Your task to perform on an android device: When is my next appointment? Image 0: 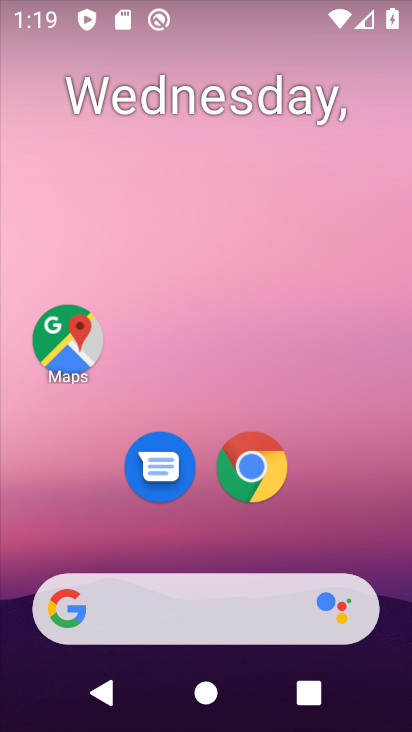
Step 0: press home button
Your task to perform on an android device: When is my next appointment? Image 1: 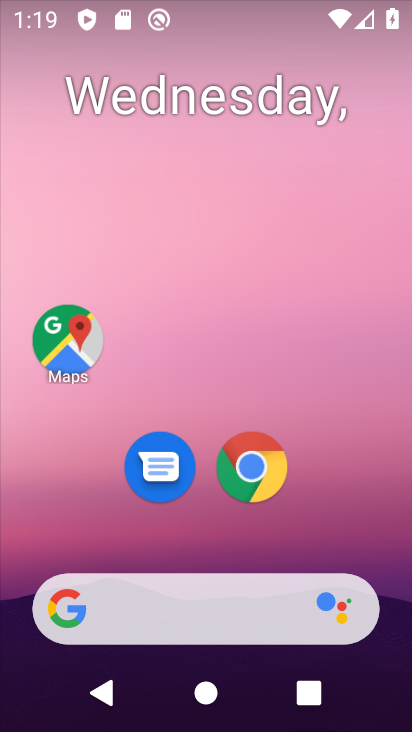
Step 1: drag from (268, 515) to (290, 13)
Your task to perform on an android device: When is my next appointment? Image 2: 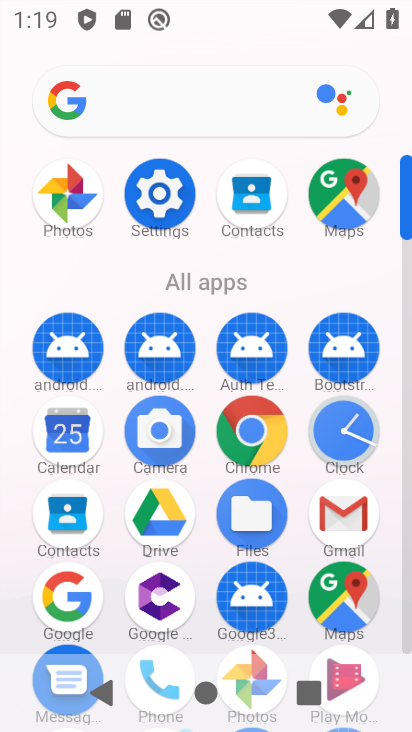
Step 2: click (76, 440)
Your task to perform on an android device: When is my next appointment? Image 3: 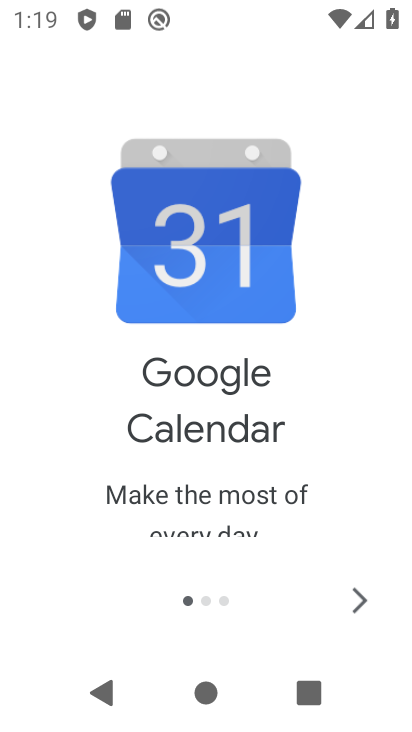
Step 3: click (355, 603)
Your task to perform on an android device: When is my next appointment? Image 4: 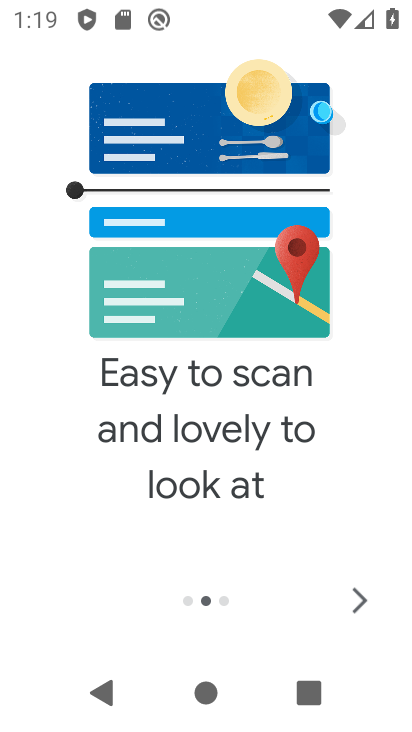
Step 4: click (355, 602)
Your task to perform on an android device: When is my next appointment? Image 5: 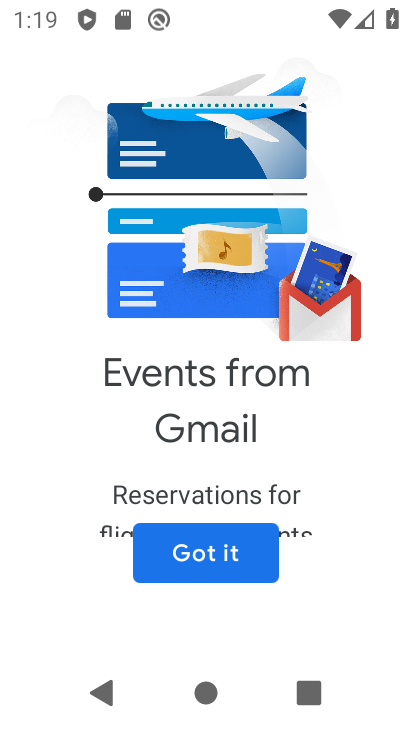
Step 5: click (203, 562)
Your task to perform on an android device: When is my next appointment? Image 6: 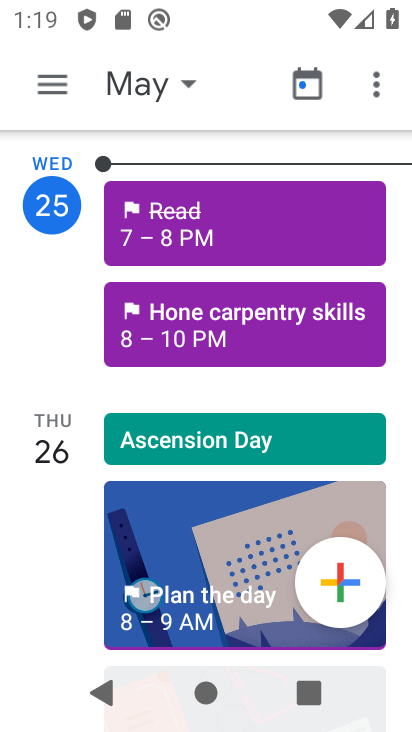
Step 6: task complete